Your task to perform on an android device: Add usb-c to usb-b to the cart on target, then select checkout. Image 0: 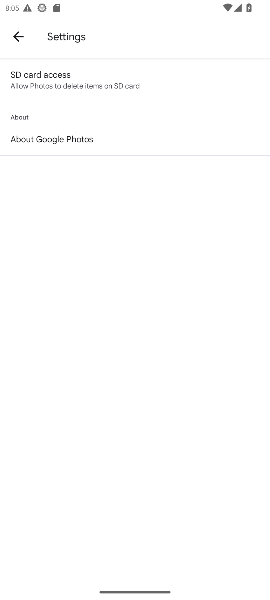
Step 0: press home button
Your task to perform on an android device: Add usb-c to usb-b to the cart on target, then select checkout. Image 1: 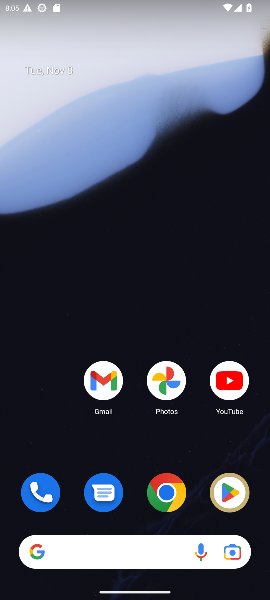
Step 1: click (164, 491)
Your task to perform on an android device: Add usb-c to usb-b to the cart on target, then select checkout. Image 2: 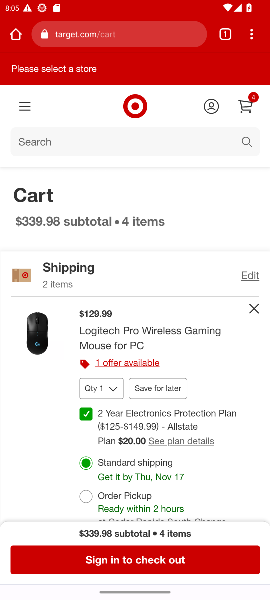
Step 2: click (90, 32)
Your task to perform on an android device: Add usb-c to usb-b to the cart on target, then select checkout. Image 3: 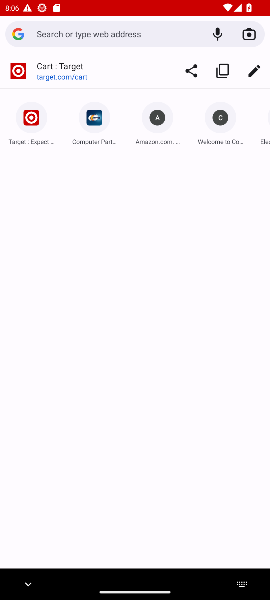
Step 3: type "target.com"
Your task to perform on an android device: Add usb-c to usb-b to the cart on target, then select checkout. Image 4: 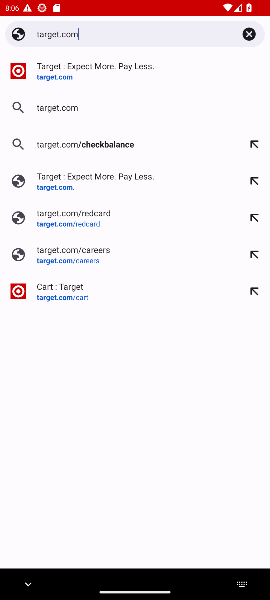
Step 4: press enter
Your task to perform on an android device: Add usb-c to usb-b to the cart on target, then select checkout. Image 5: 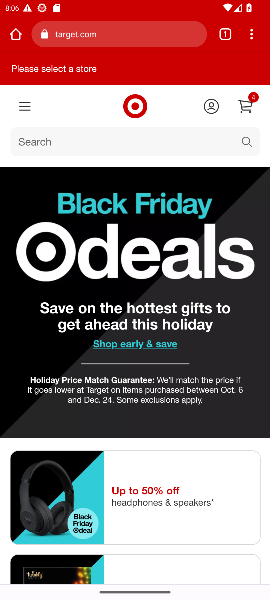
Step 5: click (127, 145)
Your task to perform on an android device: Add usb-c to usb-b to the cart on target, then select checkout. Image 6: 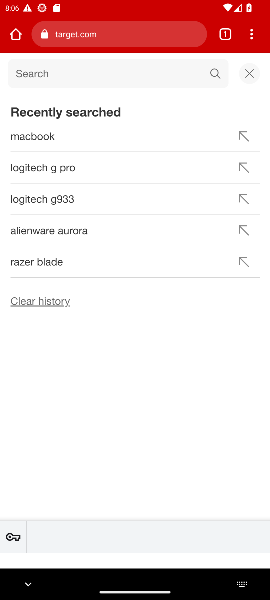
Step 6: type "usb-c to usb-b"
Your task to perform on an android device: Add usb-c to usb-b to the cart on target, then select checkout. Image 7: 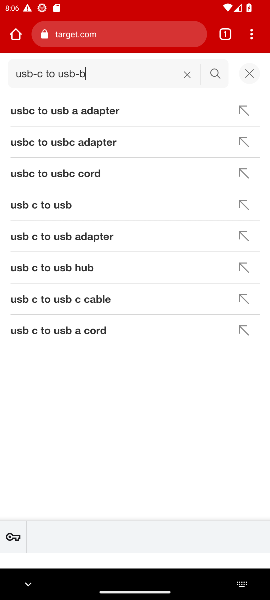
Step 7: press enter
Your task to perform on an android device: Add usb-c to usb-b to the cart on target, then select checkout. Image 8: 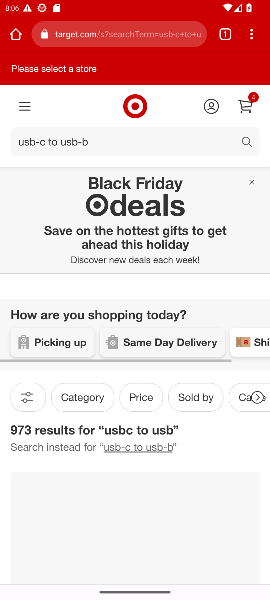
Step 8: drag from (113, 479) to (154, 311)
Your task to perform on an android device: Add usb-c to usb-b to the cart on target, then select checkout. Image 9: 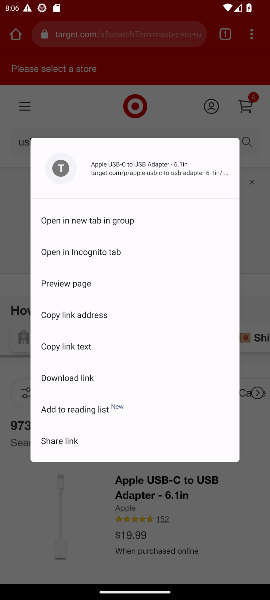
Step 9: click (222, 518)
Your task to perform on an android device: Add usb-c to usb-b to the cart on target, then select checkout. Image 10: 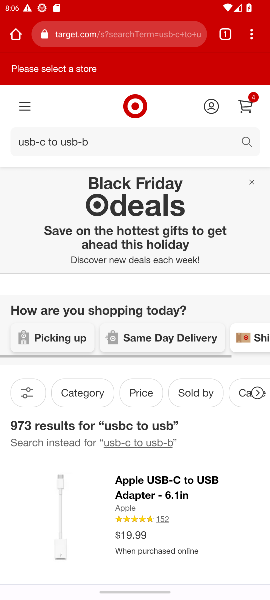
Step 10: drag from (198, 538) to (224, 305)
Your task to perform on an android device: Add usb-c to usb-b to the cart on target, then select checkout. Image 11: 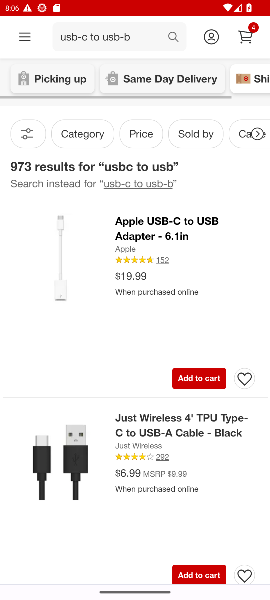
Step 11: drag from (113, 409) to (89, 598)
Your task to perform on an android device: Add usb-c to usb-b to the cart on target, then select checkout. Image 12: 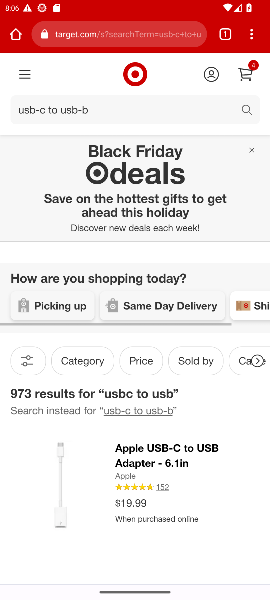
Step 12: drag from (190, 540) to (203, 431)
Your task to perform on an android device: Add usb-c to usb-b to the cart on target, then select checkout. Image 13: 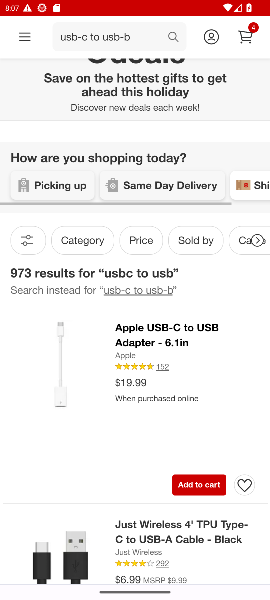
Step 13: drag from (154, 332) to (155, 412)
Your task to perform on an android device: Add usb-c to usb-b to the cart on target, then select checkout. Image 14: 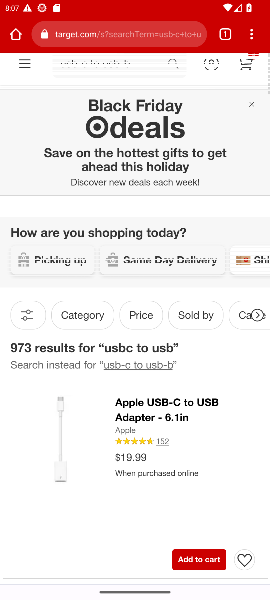
Step 14: click (243, 66)
Your task to perform on an android device: Add usb-c to usb-b to the cart on target, then select checkout. Image 15: 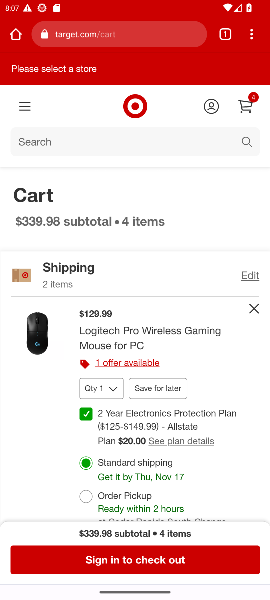
Step 15: drag from (126, 507) to (142, 204)
Your task to perform on an android device: Add usb-c to usb-b to the cart on target, then select checkout. Image 16: 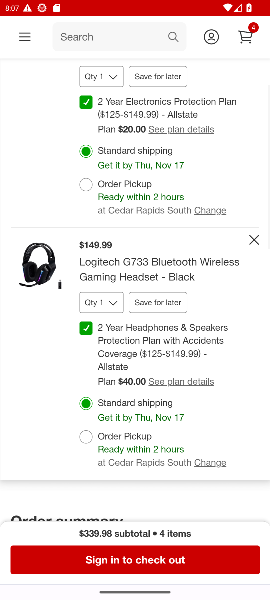
Step 16: click (101, 562)
Your task to perform on an android device: Add usb-c to usb-b to the cart on target, then select checkout. Image 17: 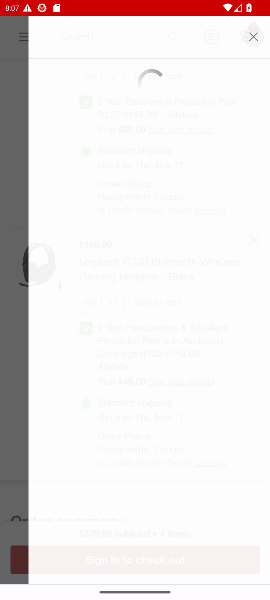
Step 17: task complete